Your task to perform on an android device: change the clock display to analog Image 0: 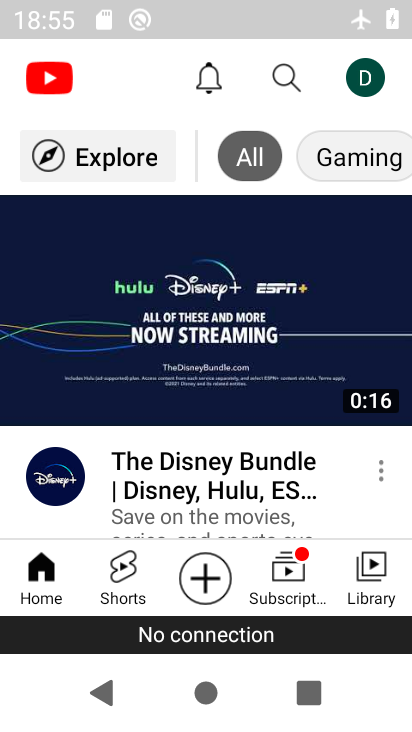
Step 0: press home button
Your task to perform on an android device: change the clock display to analog Image 1: 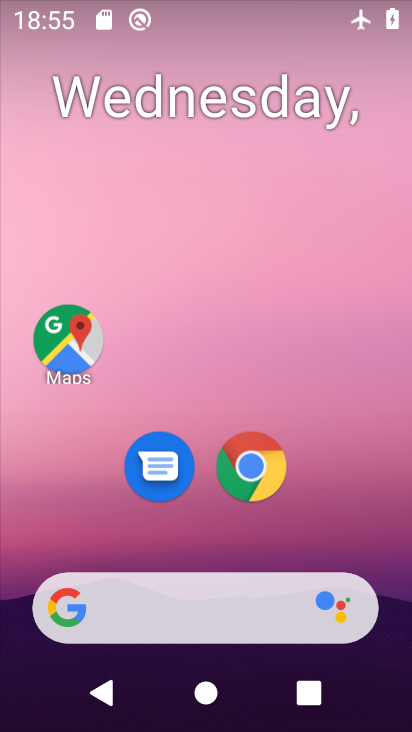
Step 1: drag from (334, 505) to (251, 99)
Your task to perform on an android device: change the clock display to analog Image 2: 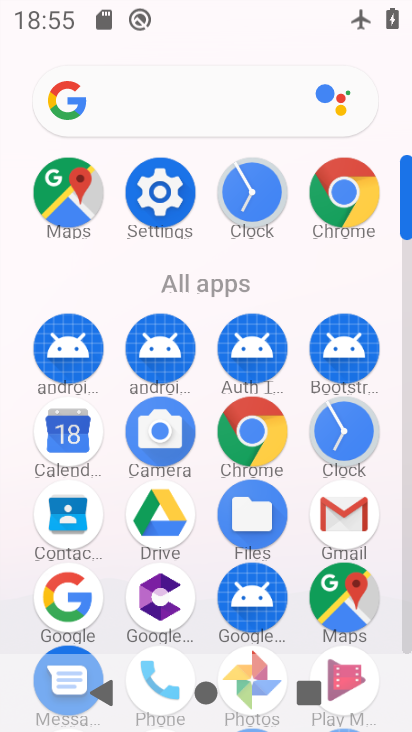
Step 2: click (259, 189)
Your task to perform on an android device: change the clock display to analog Image 3: 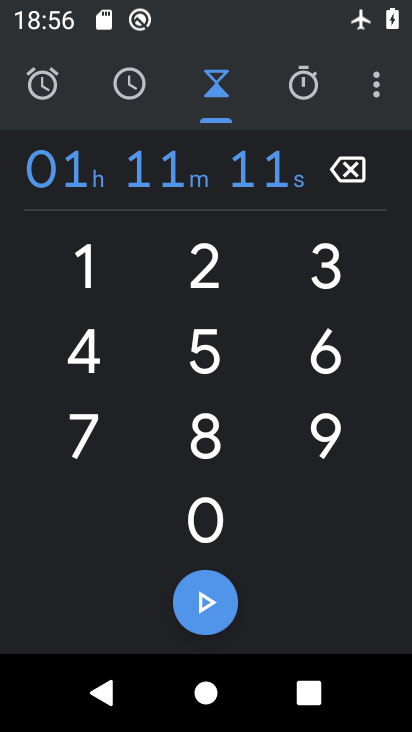
Step 3: click (377, 80)
Your task to perform on an android device: change the clock display to analog Image 4: 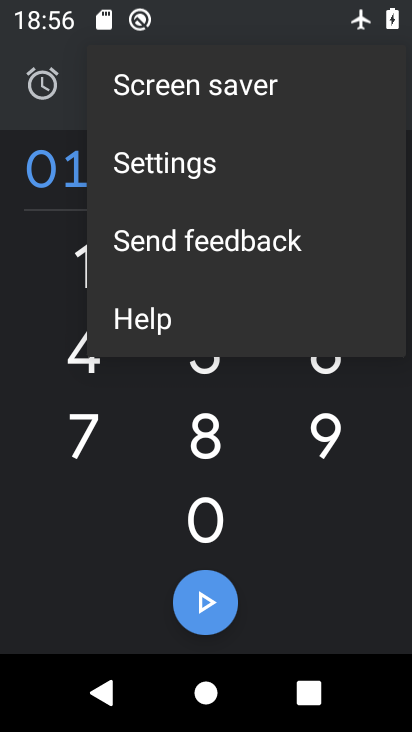
Step 4: click (166, 157)
Your task to perform on an android device: change the clock display to analog Image 5: 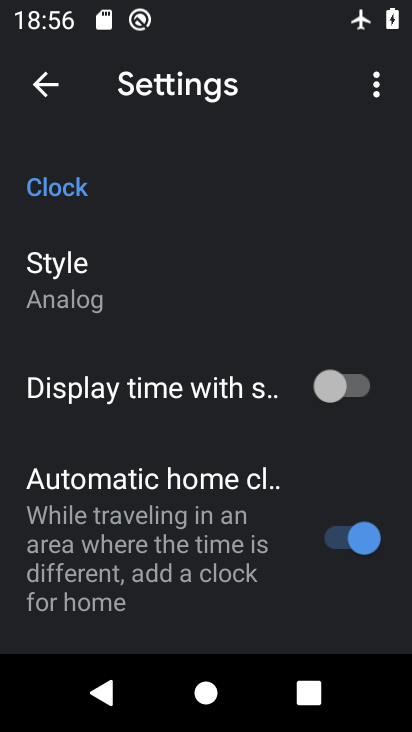
Step 5: task complete